Your task to perform on an android device: turn off improve location accuracy Image 0: 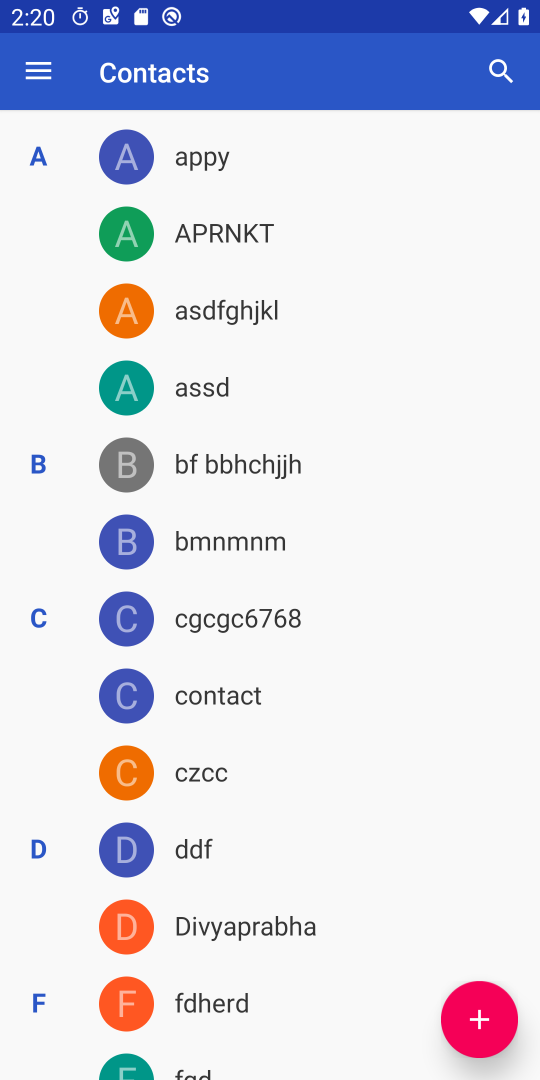
Step 0: press home button
Your task to perform on an android device: turn off improve location accuracy Image 1: 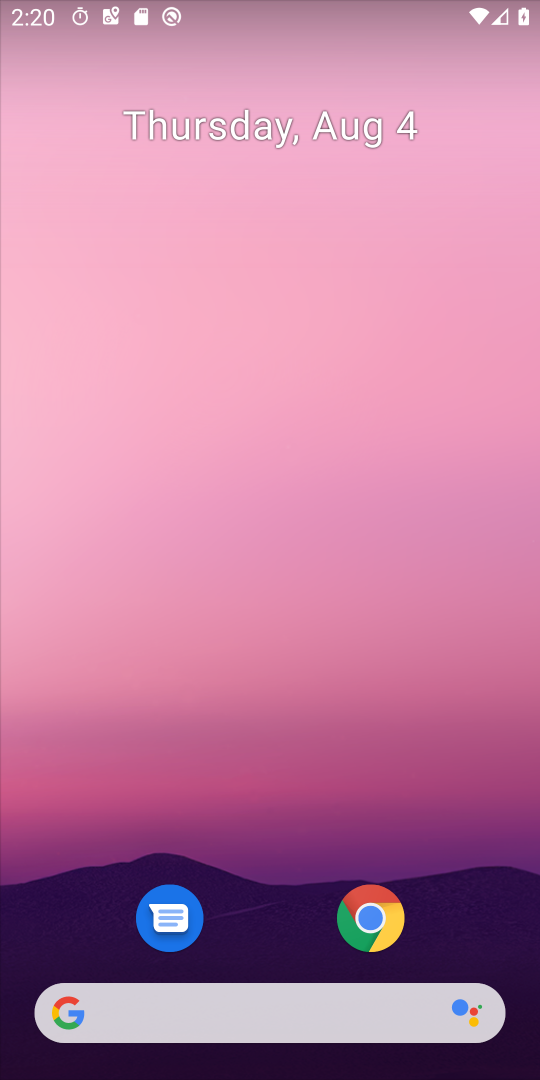
Step 1: drag from (229, 935) to (220, 241)
Your task to perform on an android device: turn off improve location accuracy Image 2: 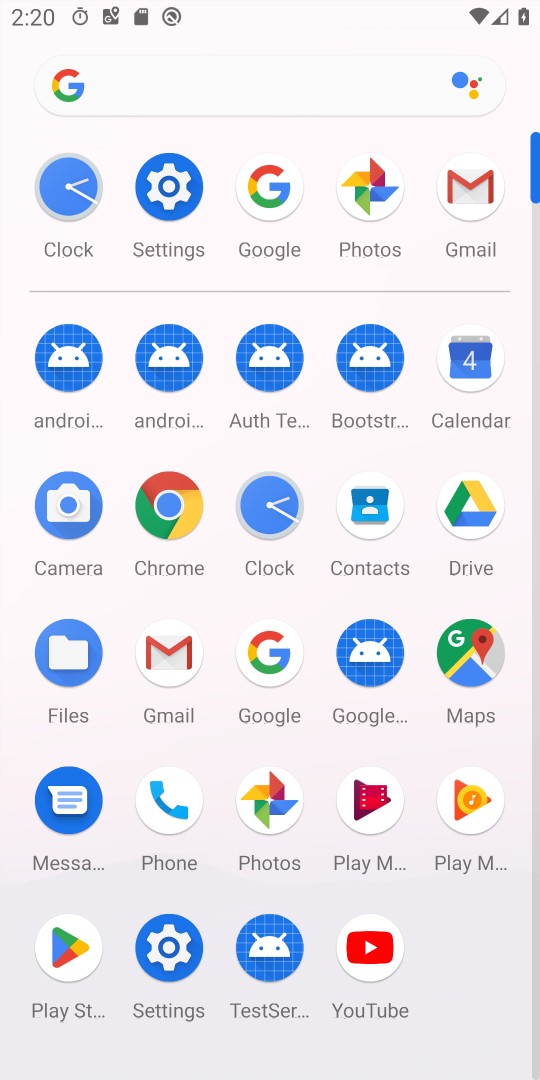
Step 2: click (146, 199)
Your task to perform on an android device: turn off improve location accuracy Image 3: 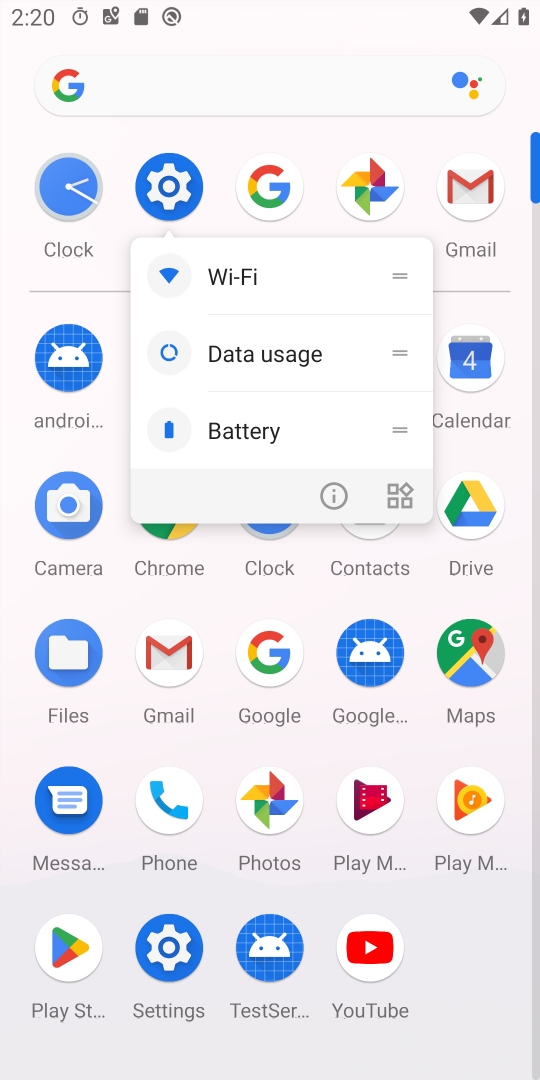
Step 3: click (146, 199)
Your task to perform on an android device: turn off improve location accuracy Image 4: 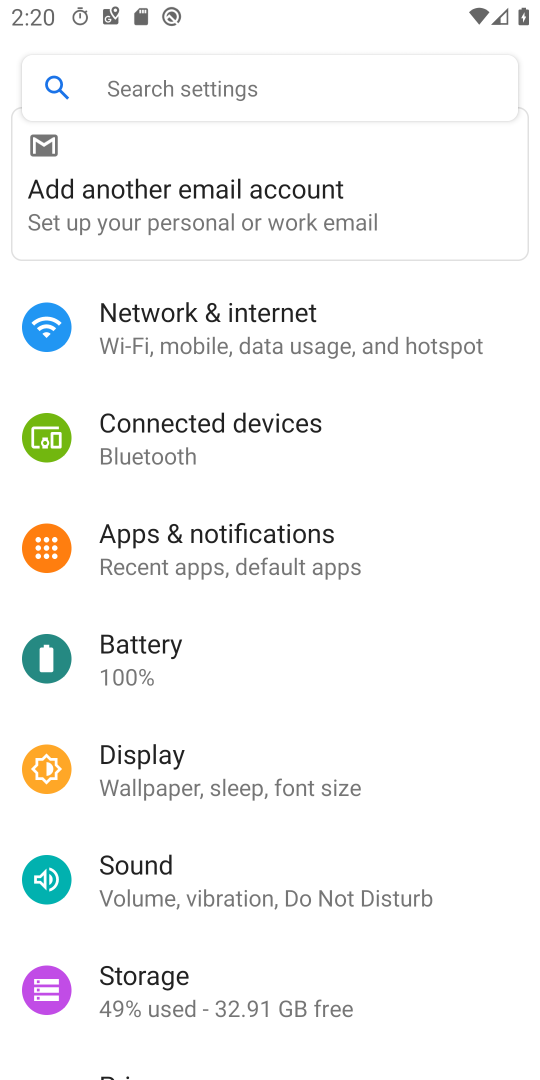
Step 4: drag from (239, 1003) to (232, 534)
Your task to perform on an android device: turn off improve location accuracy Image 5: 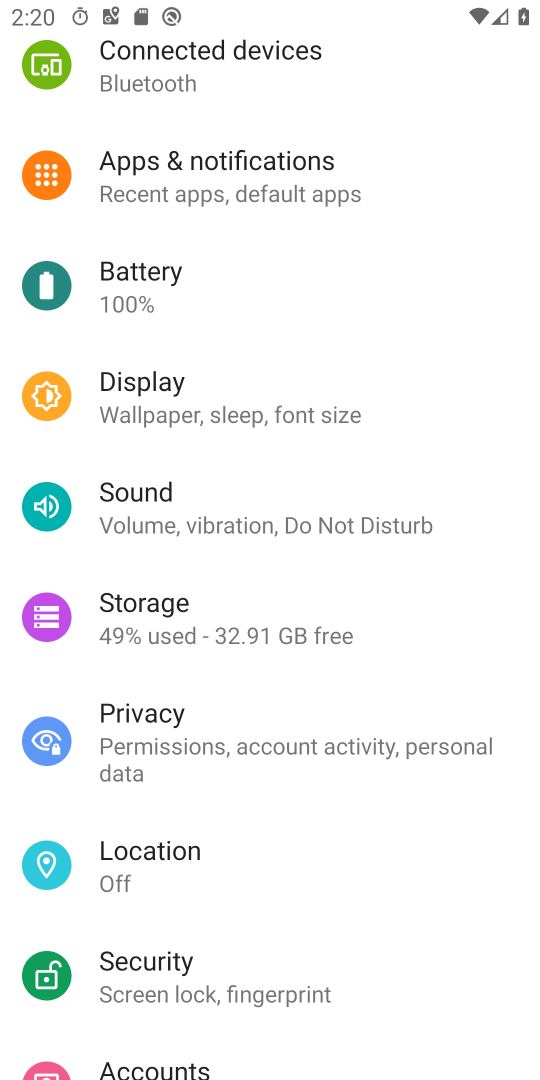
Step 5: click (184, 873)
Your task to perform on an android device: turn off improve location accuracy Image 6: 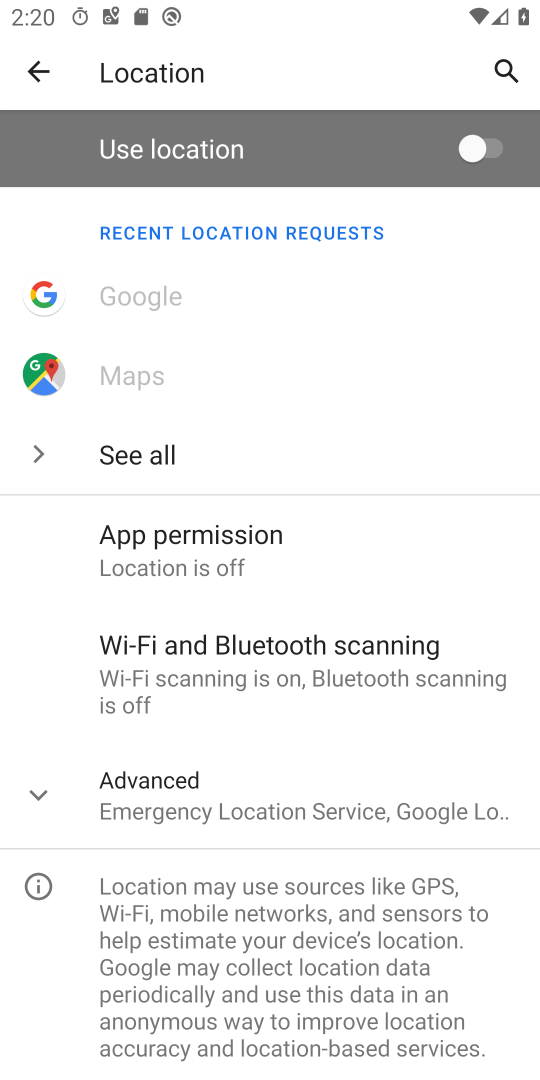
Step 6: click (327, 805)
Your task to perform on an android device: turn off improve location accuracy Image 7: 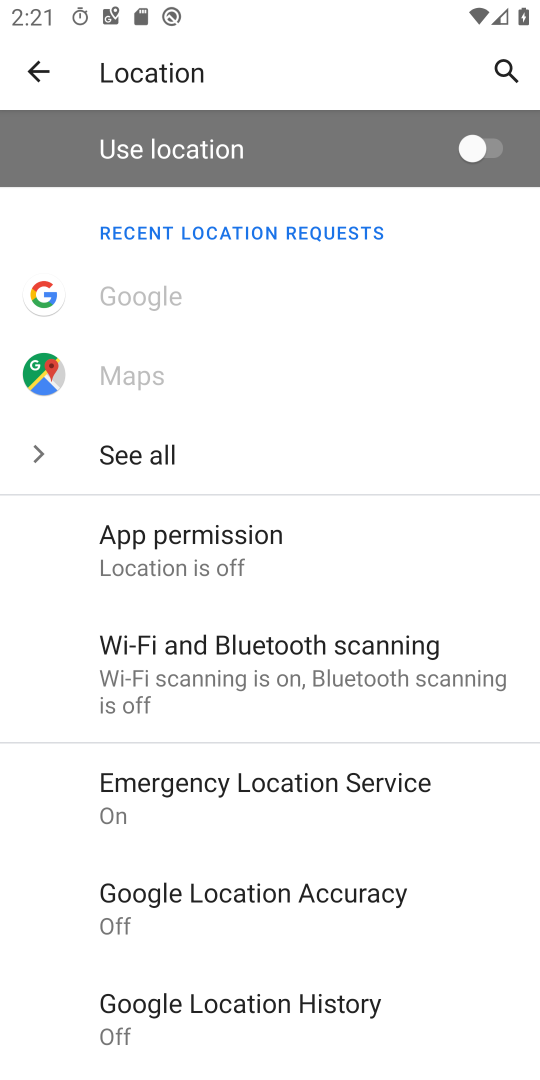
Step 7: click (335, 879)
Your task to perform on an android device: turn off improve location accuracy Image 8: 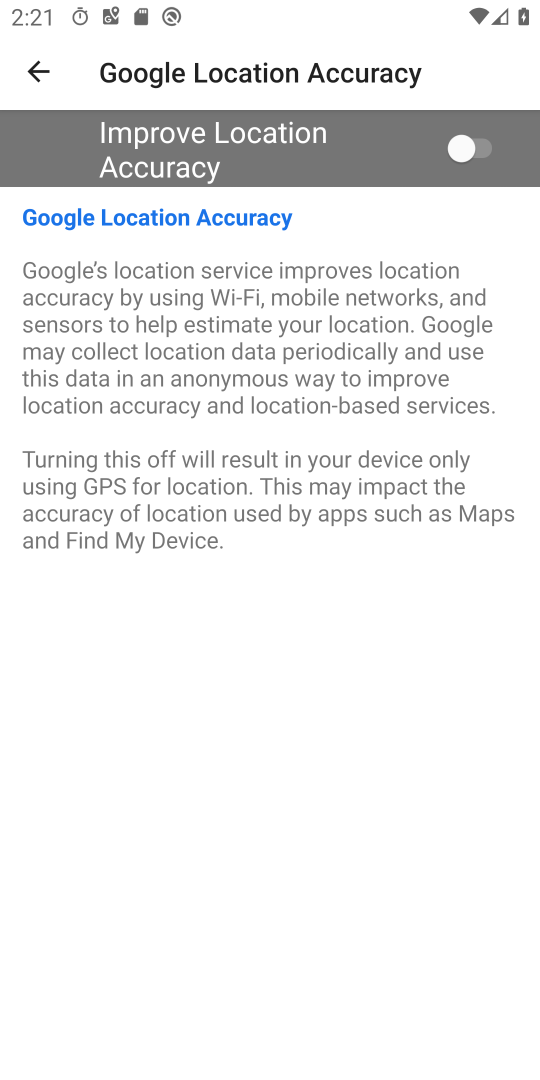
Step 8: task complete